Your task to perform on an android device: Open network settings Image 0: 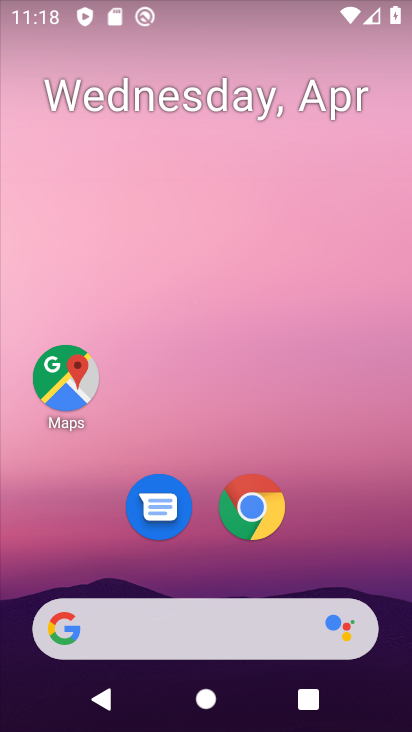
Step 0: drag from (335, 479) to (321, 68)
Your task to perform on an android device: Open network settings Image 1: 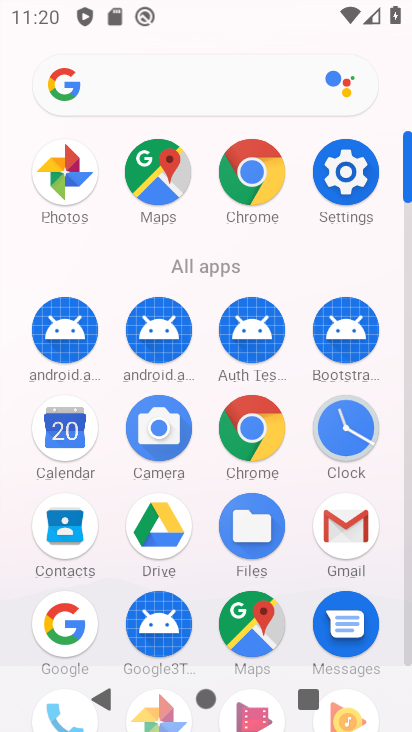
Step 1: click (360, 160)
Your task to perform on an android device: Open network settings Image 2: 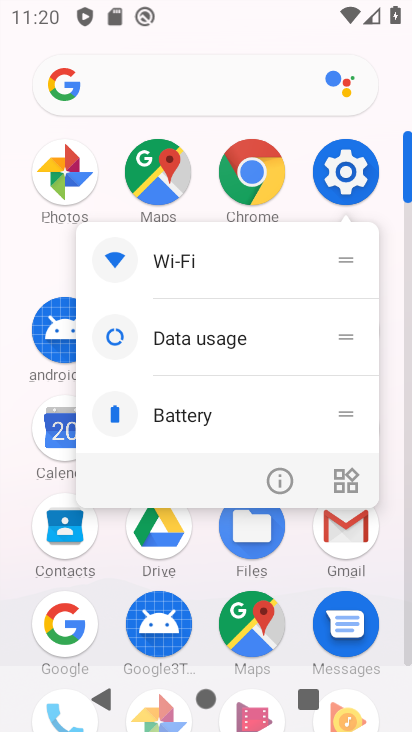
Step 2: click (360, 160)
Your task to perform on an android device: Open network settings Image 3: 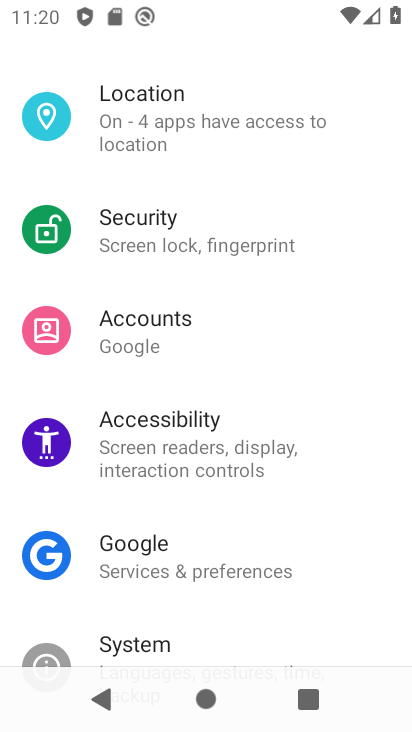
Step 3: drag from (180, 171) to (191, 653)
Your task to perform on an android device: Open network settings Image 4: 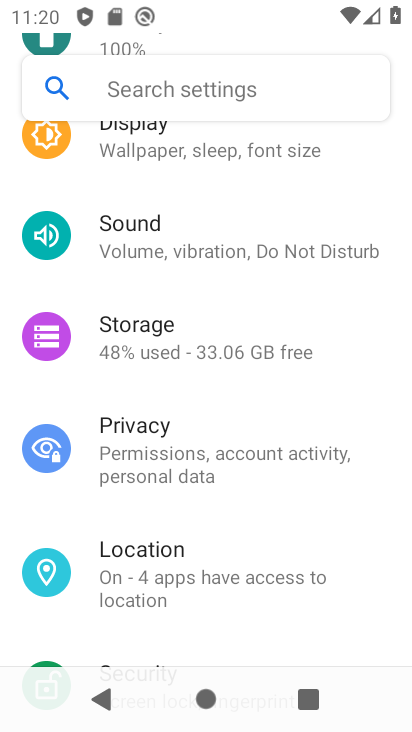
Step 4: drag from (184, 205) to (203, 722)
Your task to perform on an android device: Open network settings Image 5: 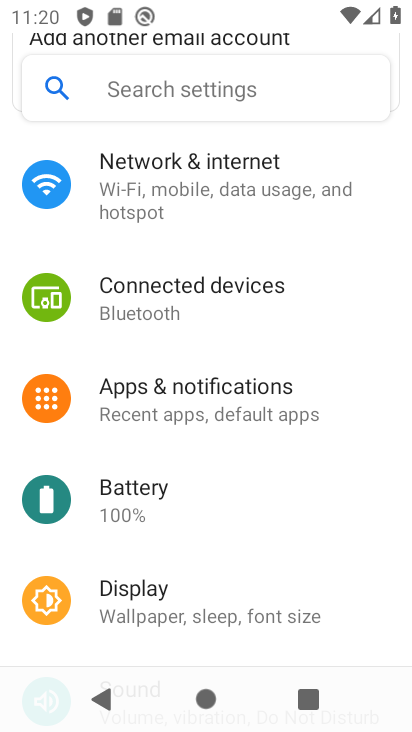
Step 5: drag from (169, 169) to (147, 678)
Your task to perform on an android device: Open network settings Image 6: 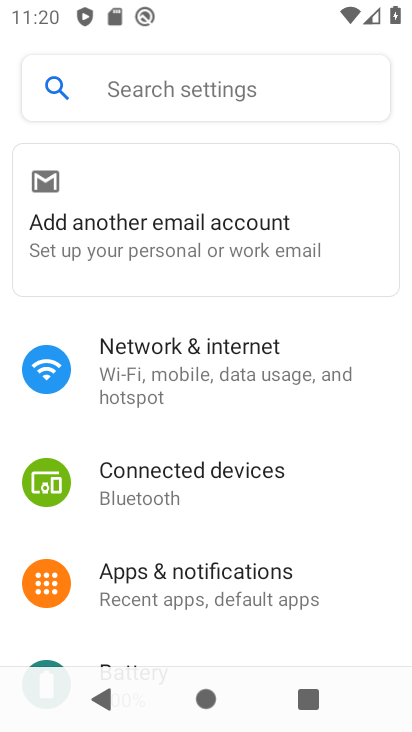
Step 6: click (149, 352)
Your task to perform on an android device: Open network settings Image 7: 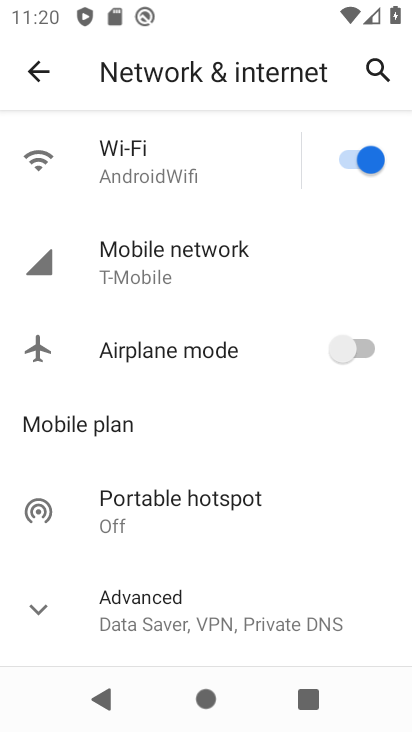
Step 7: task complete